Your task to perform on an android device: find which apps use the phone's location Image 0: 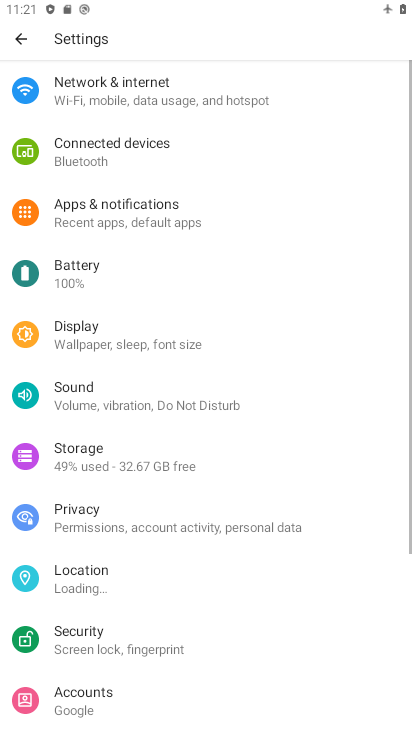
Step 0: press home button
Your task to perform on an android device: find which apps use the phone's location Image 1: 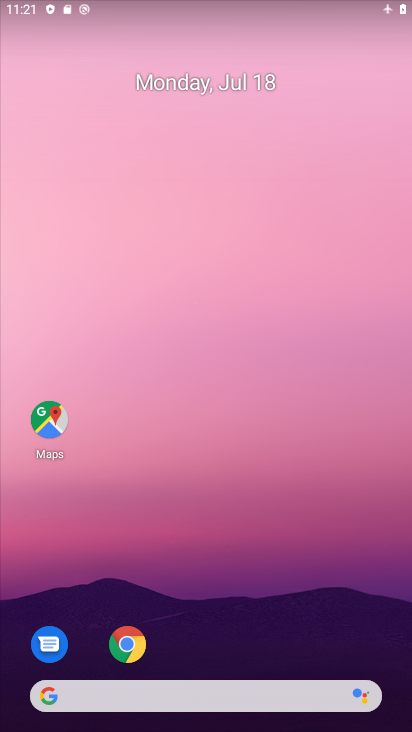
Step 1: drag from (203, 664) to (233, 207)
Your task to perform on an android device: find which apps use the phone's location Image 2: 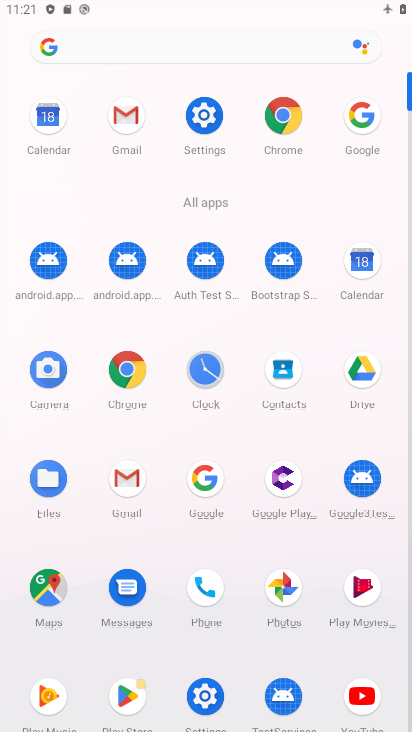
Step 2: click (216, 111)
Your task to perform on an android device: find which apps use the phone's location Image 3: 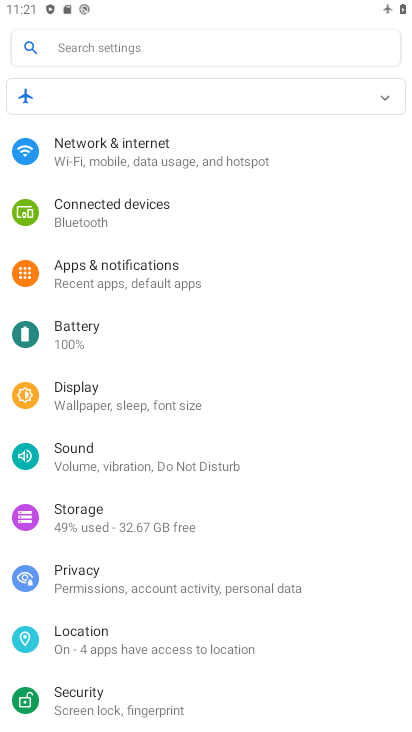
Step 3: click (107, 634)
Your task to perform on an android device: find which apps use the phone's location Image 4: 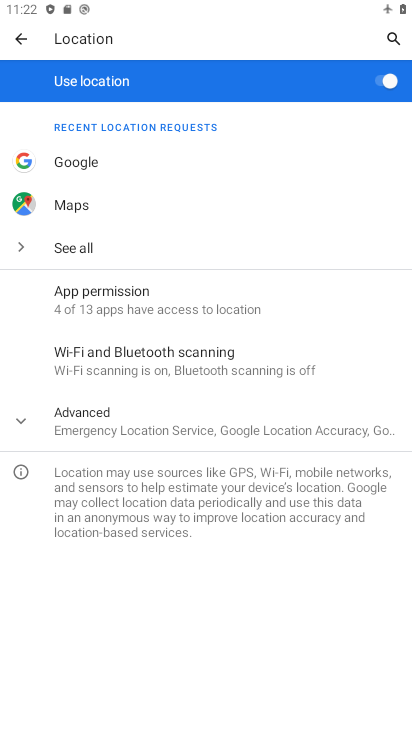
Step 4: click (90, 296)
Your task to perform on an android device: find which apps use the phone's location Image 5: 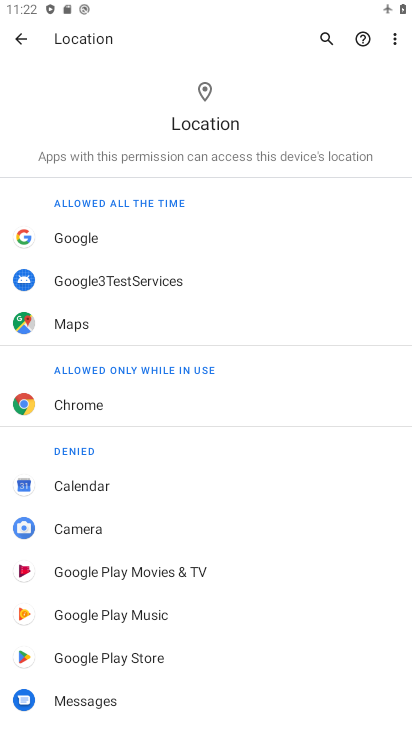
Step 5: task complete